Your task to perform on an android device: open a bookmark in the chrome app Image 0: 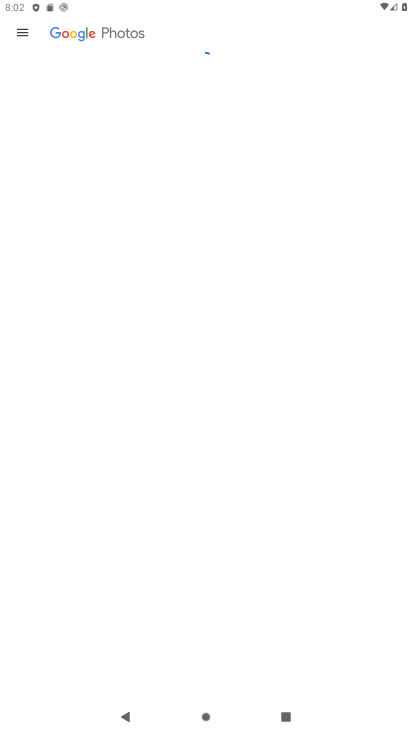
Step 0: press home button
Your task to perform on an android device: open a bookmark in the chrome app Image 1: 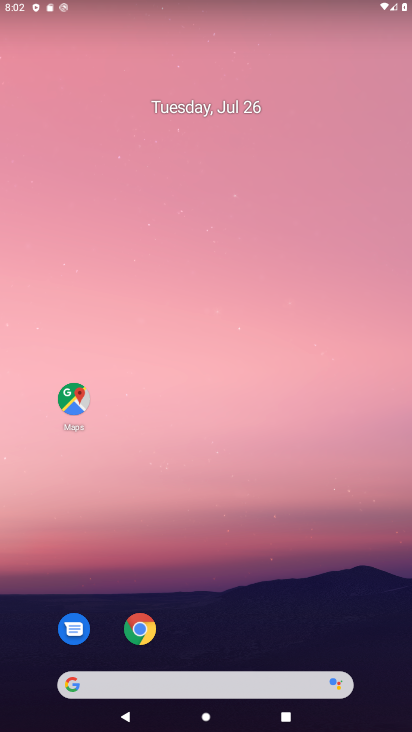
Step 1: click (134, 624)
Your task to perform on an android device: open a bookmark in the chrome app Image 2: 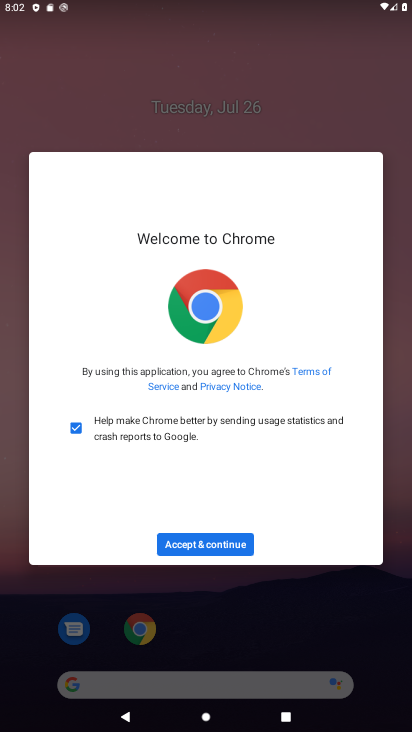
Step 2: click (218, 538)
Your task to perform on an android device: open a bookmark in the chrome app Image 3: 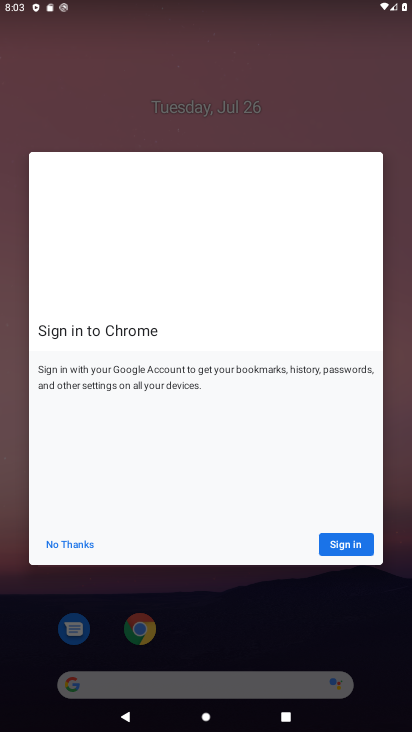
Step 3: click (343, 538)
Your task to perform on an android device: open a bookmark in the chrome app Image 4: 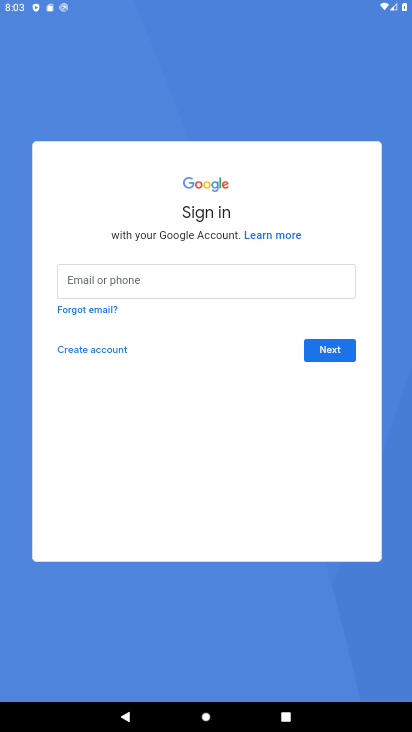
Step 4: task complete